Your task to perform on an android device: change the clock display to show seconds Image 0: 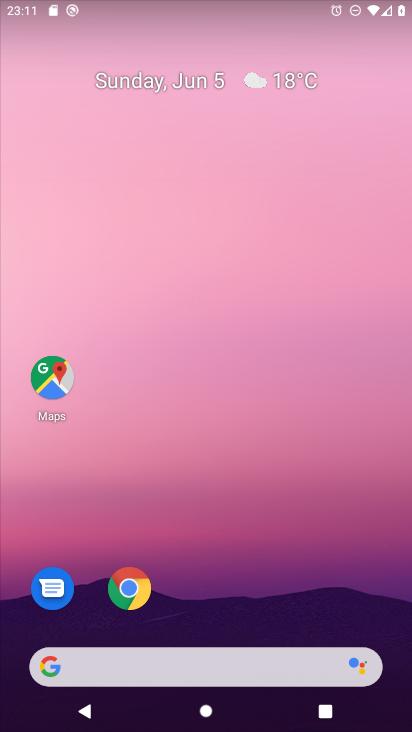
Step 0: drag from (381, 617) to (378, 198)
Your task to perform on an android device: change the clock display to show seconds Image 1: 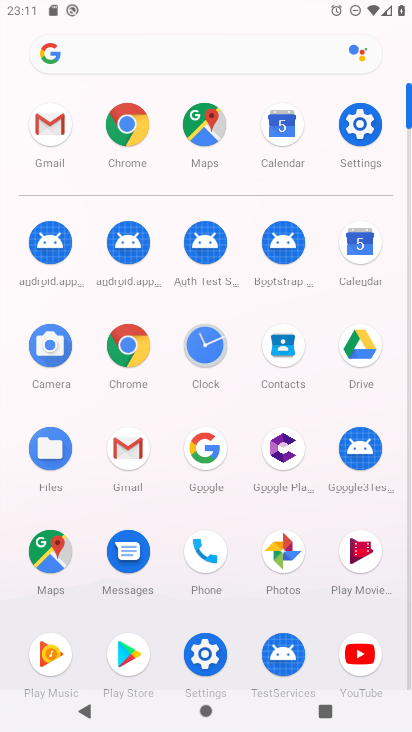
Step 1: click (202, 356)
Your task to perform on an android device: change the clock display to show seconds Image 2: 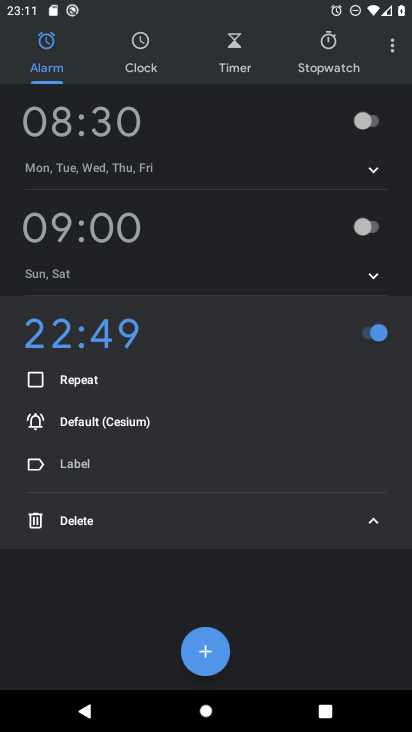
Step 2: click (394, 55)
Your task to perform on an android device: change the clock display to show seconds Image 3: 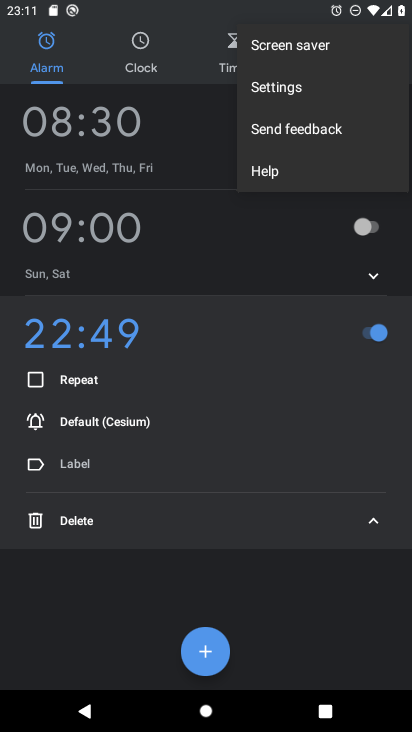
Step 3: click (322, 95)
Your task to perform on an android device: change the clock display to show seconds Image 4: 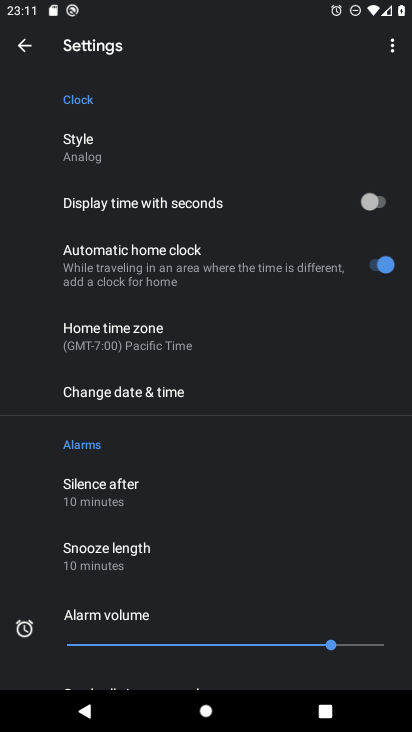
Step 4: drag from (293, 483) to (315, 322)
Your task to perform on an android device: change the clock display to show seconds Image 5: 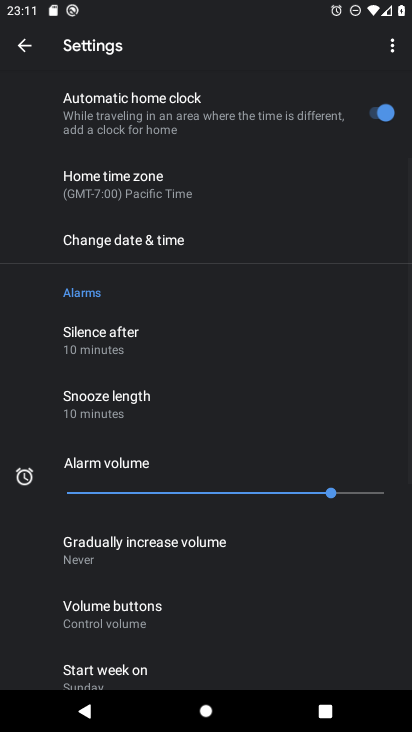
Step 5: drag from (292, 554) to (294, 386)
Your task to perform on an android device: change the clock display to show seconds Image 6: 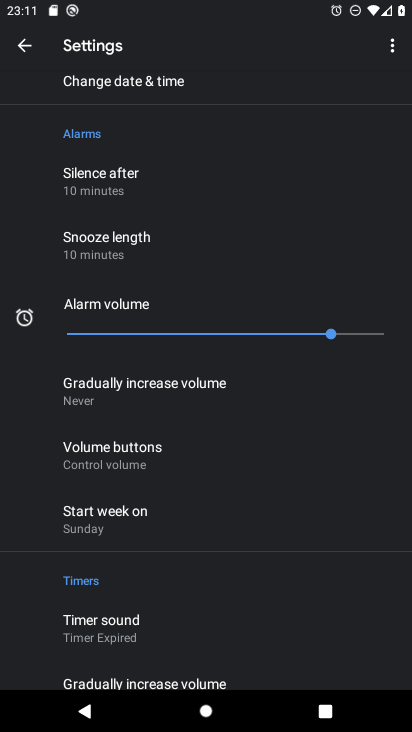
Step 6: drag from (307, 569) to (311, 264)
Your task to perform on an android device: change the clock display to show seconds Image 7: 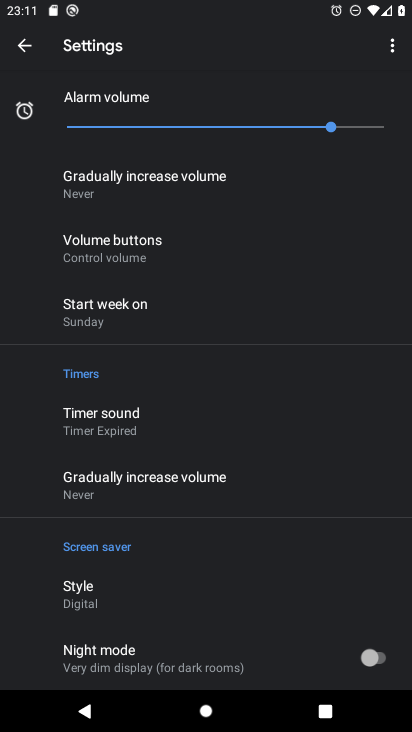
Step 7: drag from (300, 241) to (304, 379)
Your task to perform on an android device: change the clock display to show seconds Image 8: 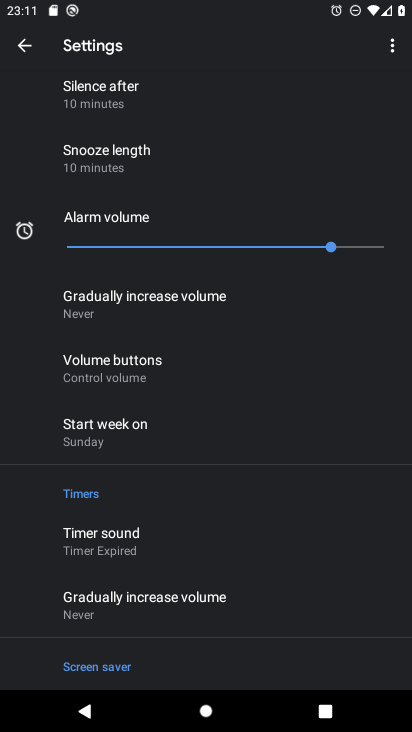
Step 8: drag from (296, 188) to (298, 300)
Your task to perform on an android device: change the clock display to show seconds Image 9: 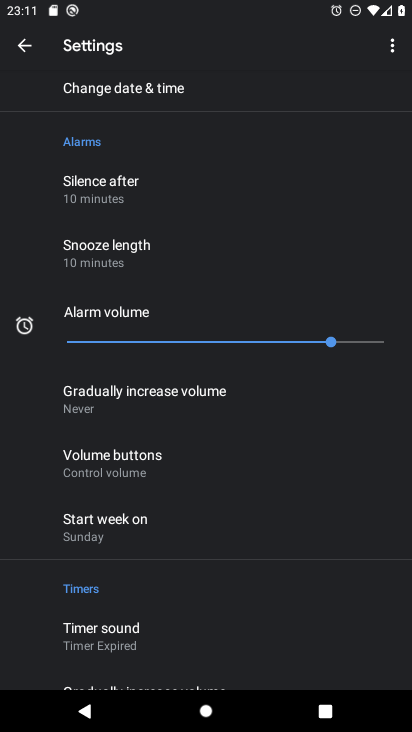
Step 9: drag from (289, 172) to (295, 337)
Your task to perform on an android device: change the clock display to show seconds Image 10: 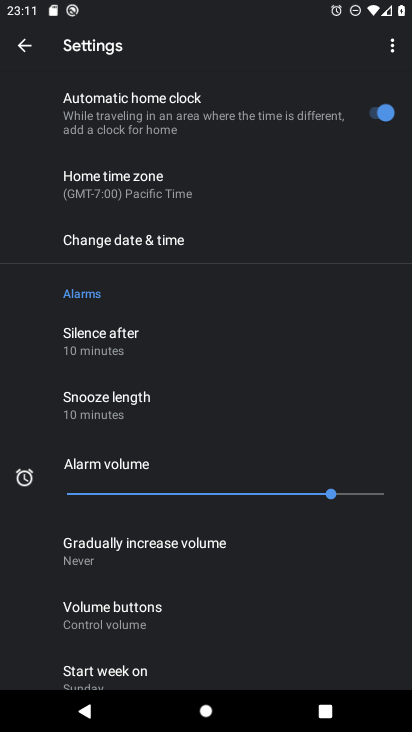
Step 10: drag from (284, 209) to (297, 335)
Your task to perform on an android device: change the clock display to show seconds Image 11: 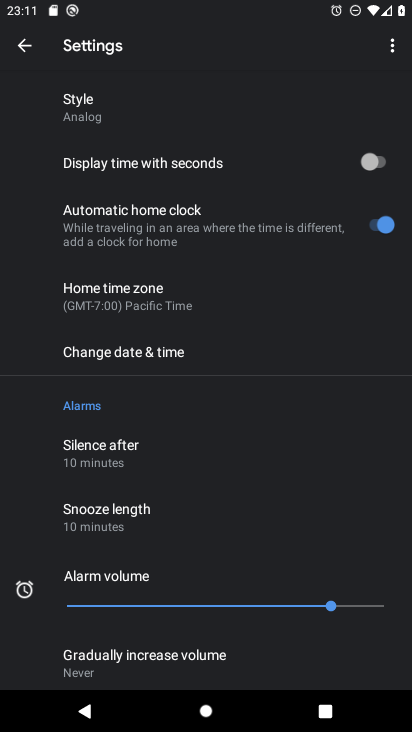
Step 11: drag from (278, 173) to (285, 304)
Your task to perform on an android device: change the clock display to show seconds Image 12: 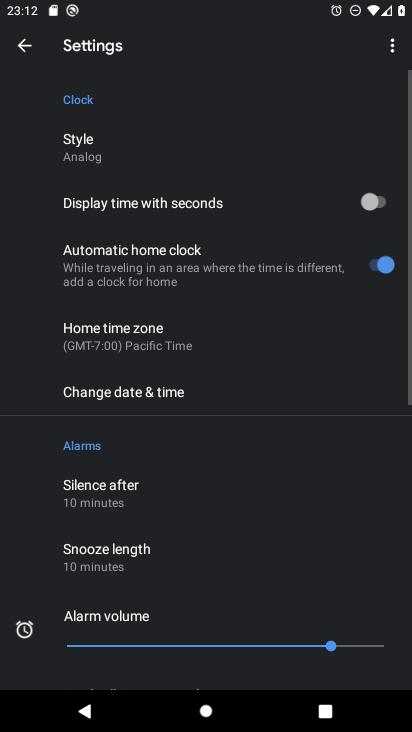
Step 12: click (358, 212)
Your task to perform on an android device: change the clock display to show seconds Image 13: 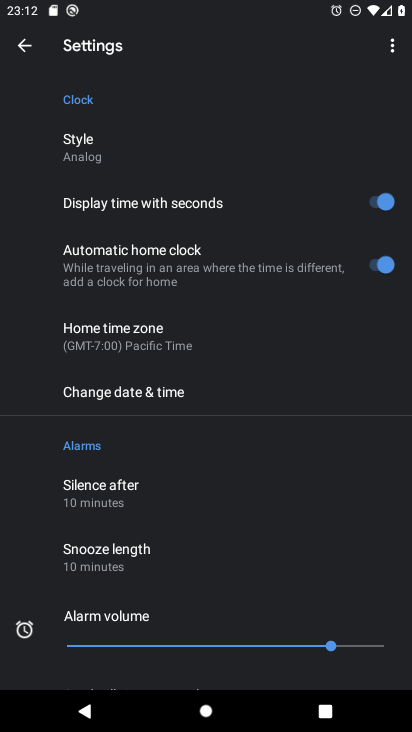
Step 13: task complete